Your task to perform on an android device: install app "Speedtest by Ookla" Image 0: 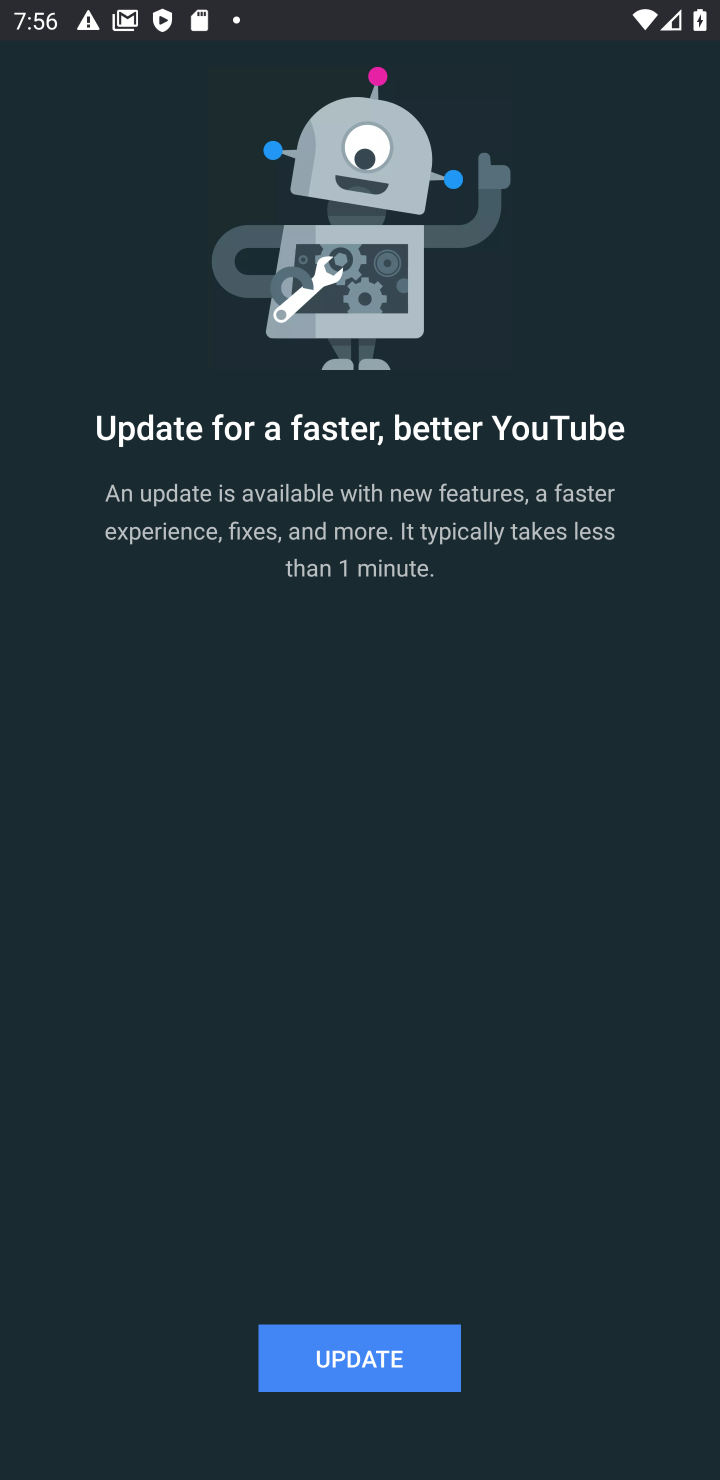
Step 0: press home button
Your task to perform on an android device: install app "Speedtest by Ookla" Image 1: 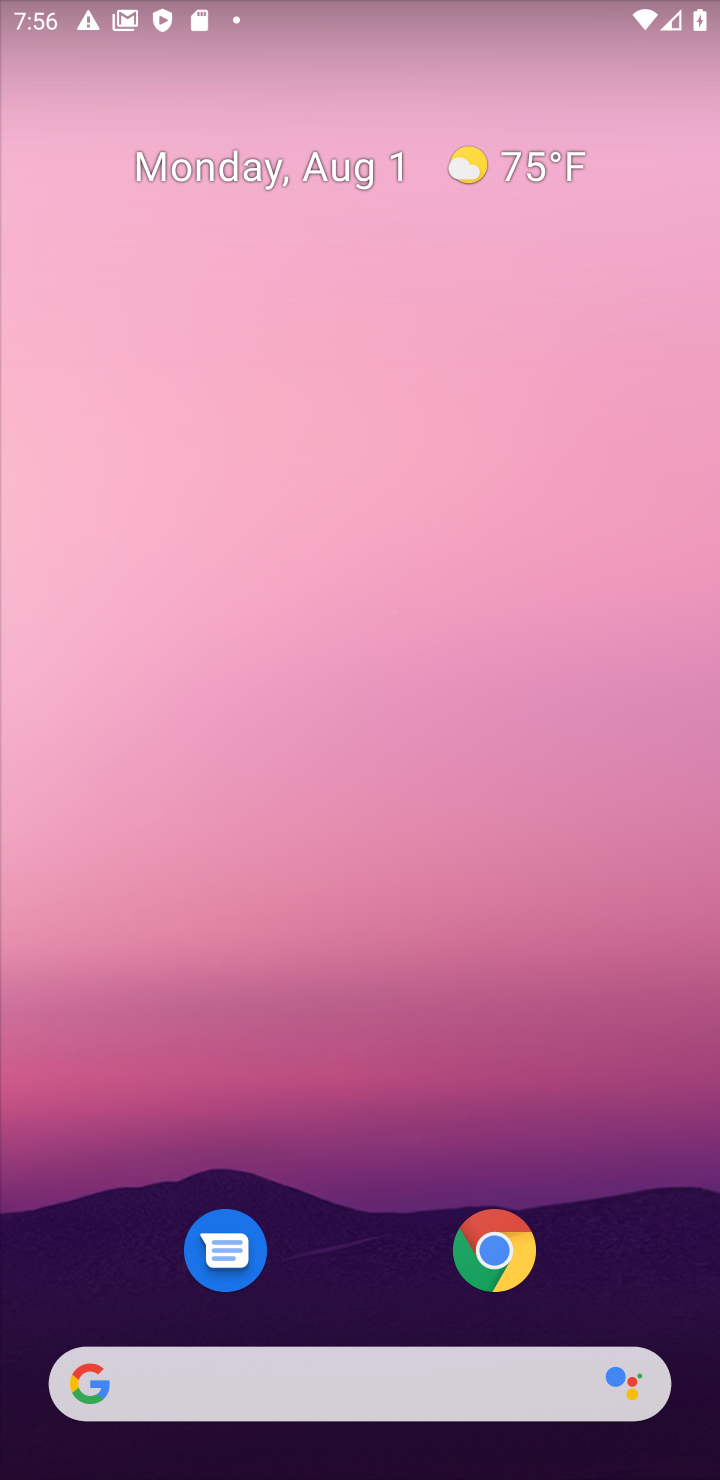
Step 1: drag from (381, 1153) to (344, 129)
Your task to perform on an android device: install app "Speedtest by Ookla" Image 2: 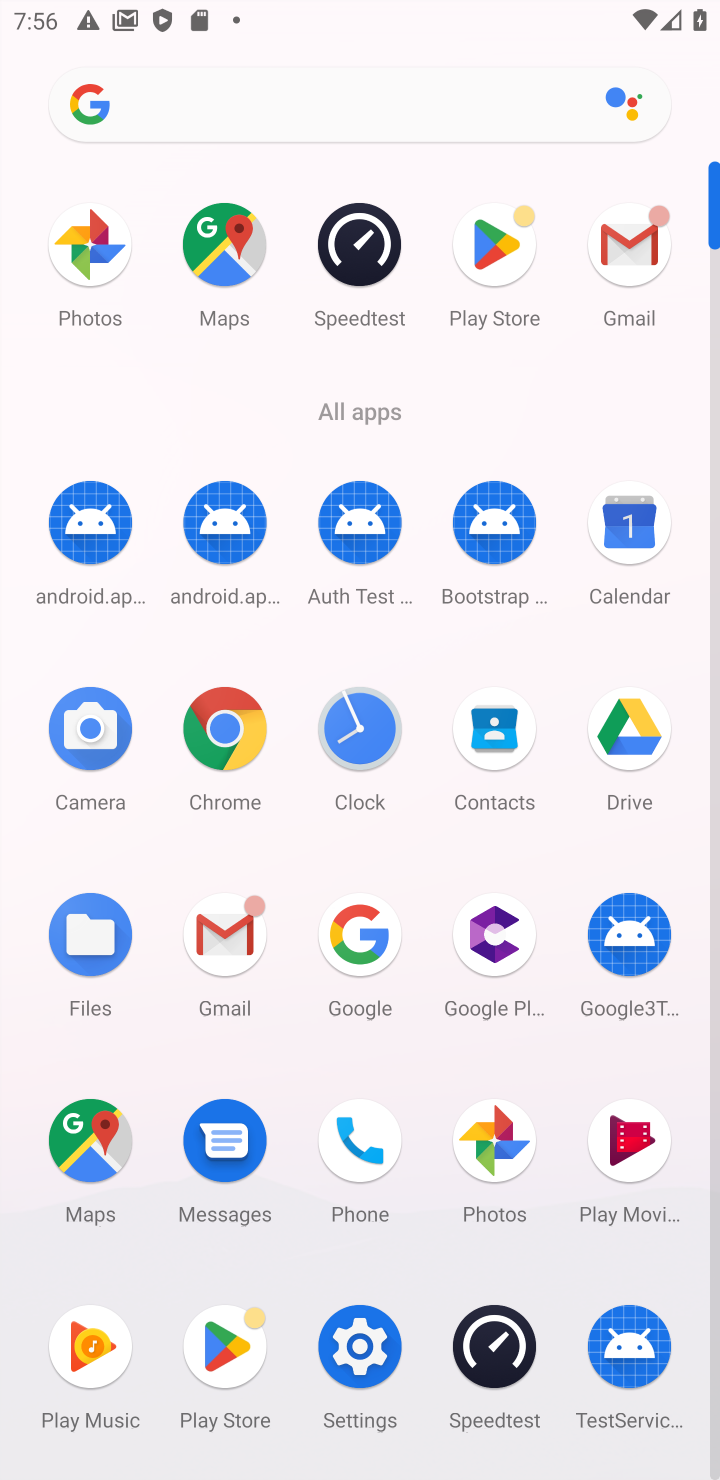
Step 2: click (478, 251)
Your task to perform on an android device: install app "Speedtest by Ookla" Image 3: 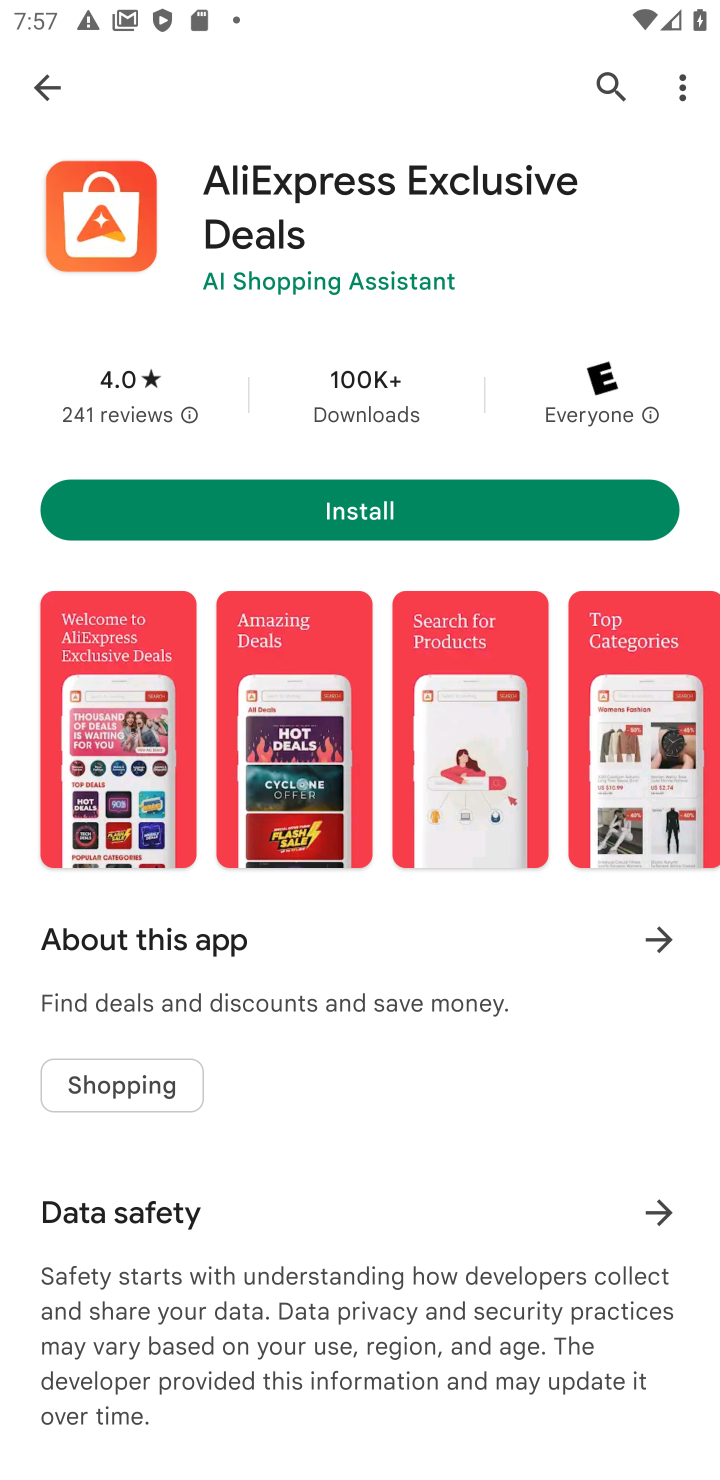
Step 3: click (617, 78)
Your task to perform on an android device: install app "Speedtest by Ookla" Image 4: 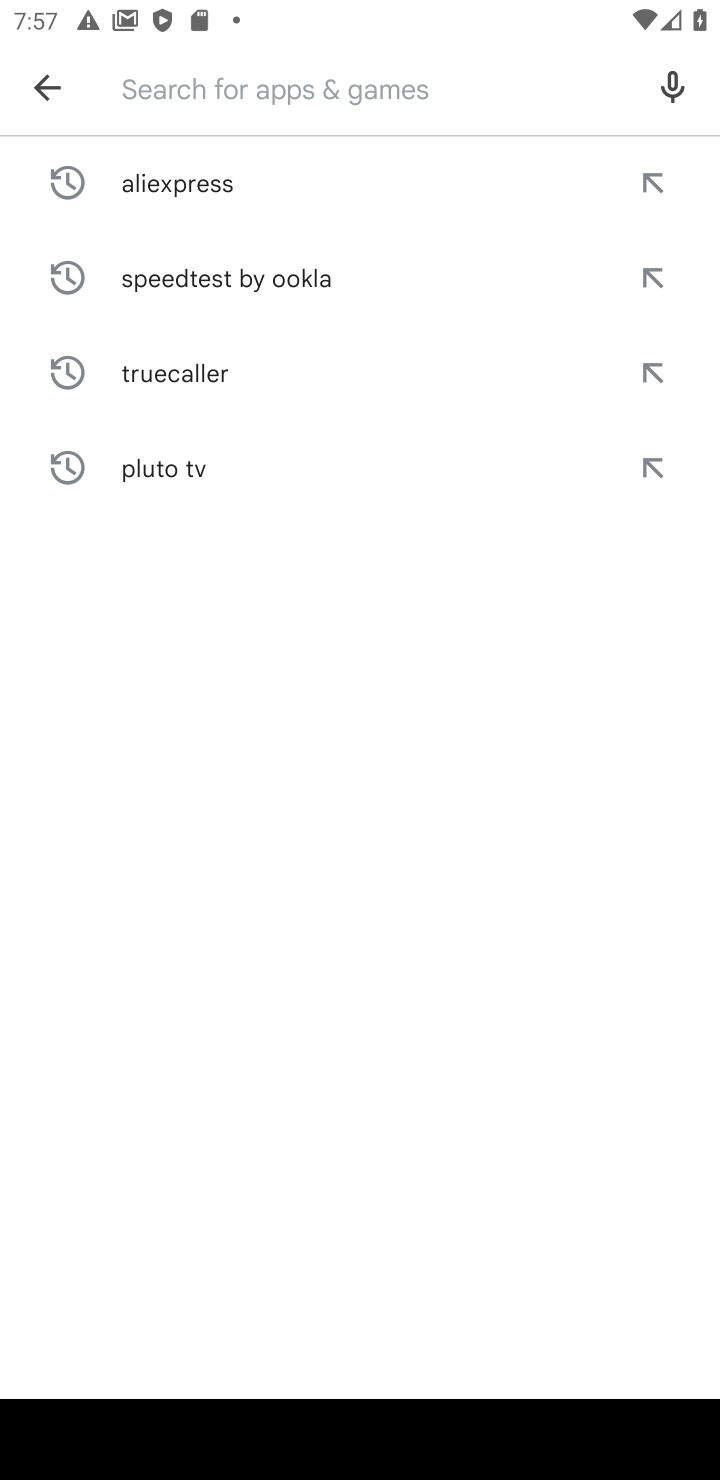
Step 4: click (144, 294)
Your task to perform on an android device: install app "Speedtest by Ookla" Image 5: 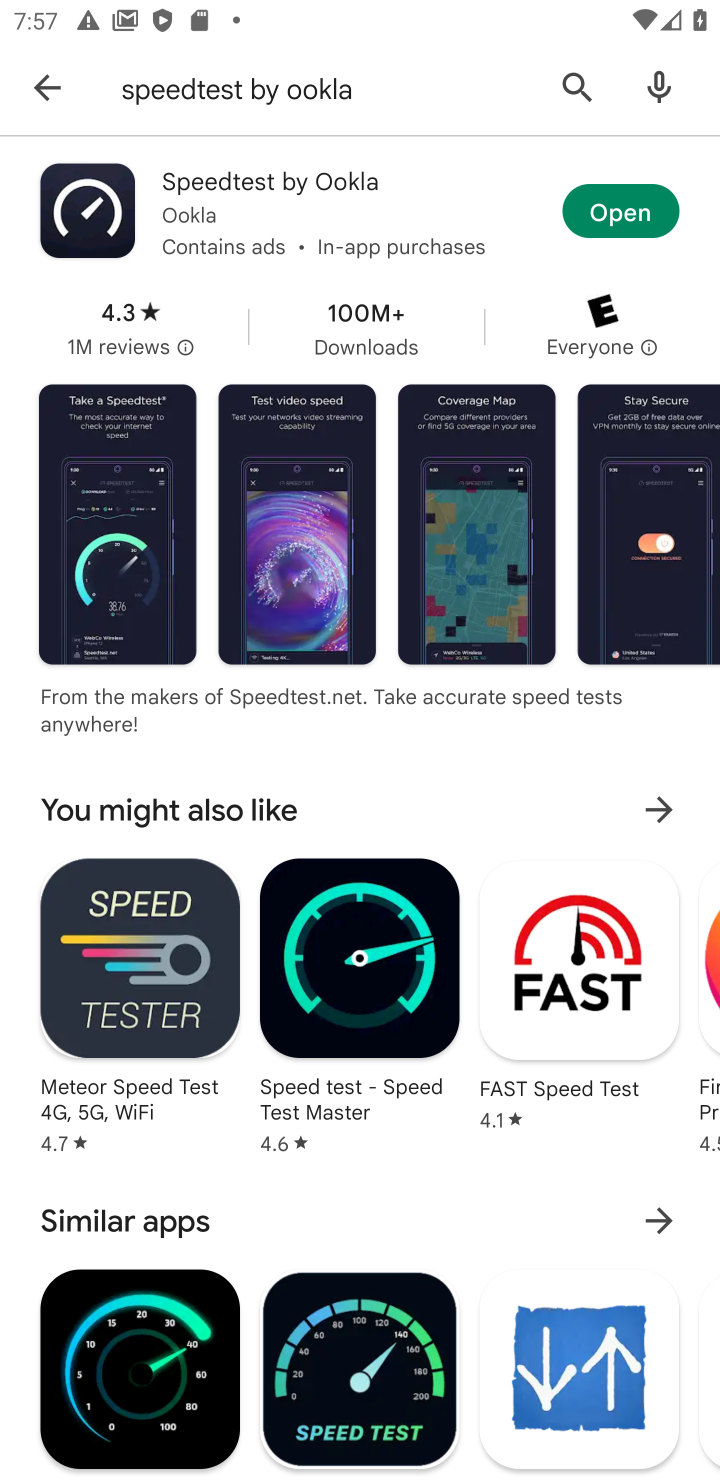
Step 5: task complete